Your task to perform on an android device: Is it going to rain this weekend? Image 0: 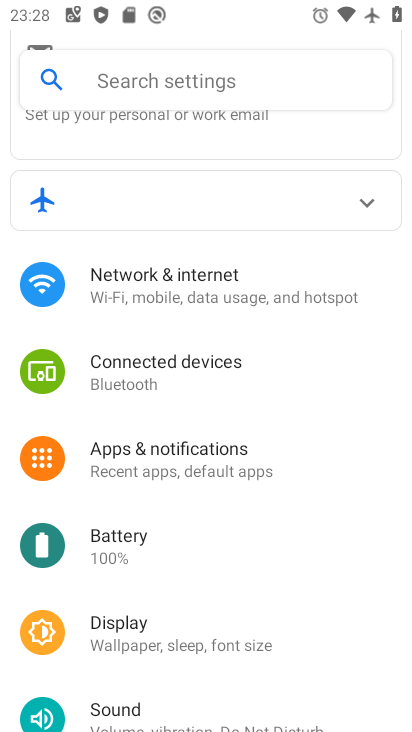
Step 0: press back button
Your task to perform on an android device: Is it going to rain this weekend? Image 1: 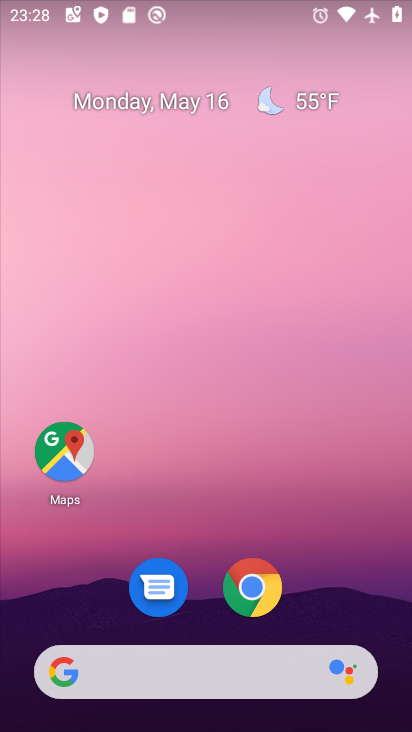
Step 1: drag from (313, 629) to (315, 27)
Your task to perform on an android device: Is it going to rain this weekend? Image 2: 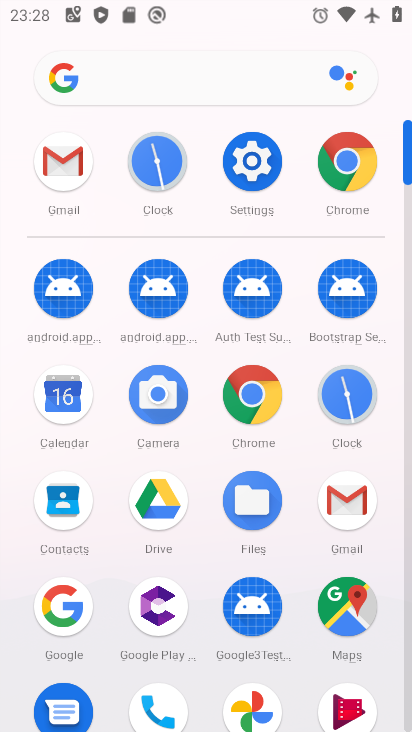
Step 2: drag from (9, 592) to (0, 235)
Your task to perform on an android device: Is it going to rain this weekend? Image 3: 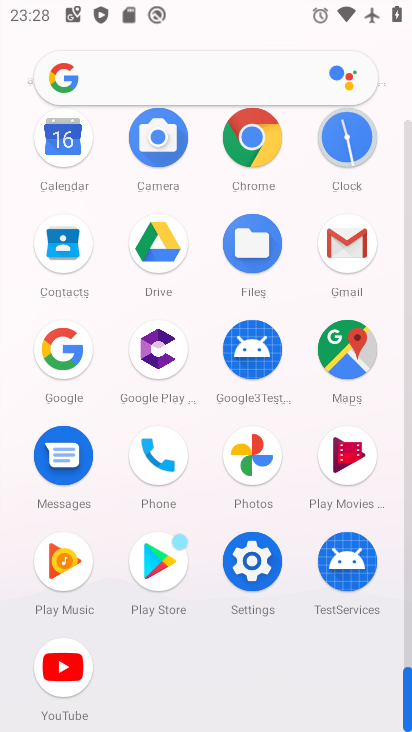
Step 3: drag from (8, 205) to (22, 449)
Your task to perform on an android device: Is it going to rain this weekend? Image 4: 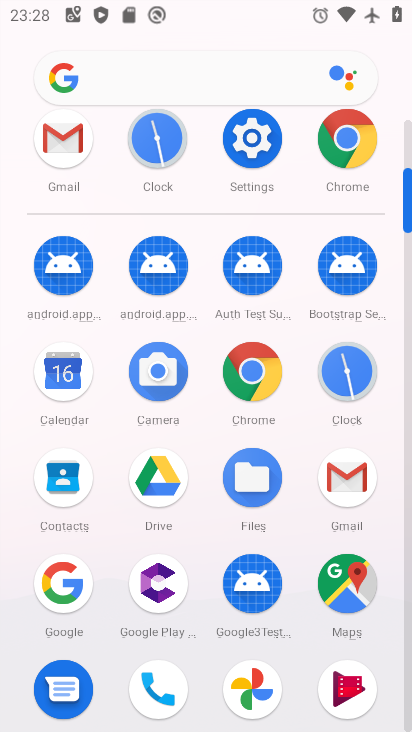
Step 4: click (250, 371)
Your task to perform on an android device: Is it going to rain this weekend? Image 5: 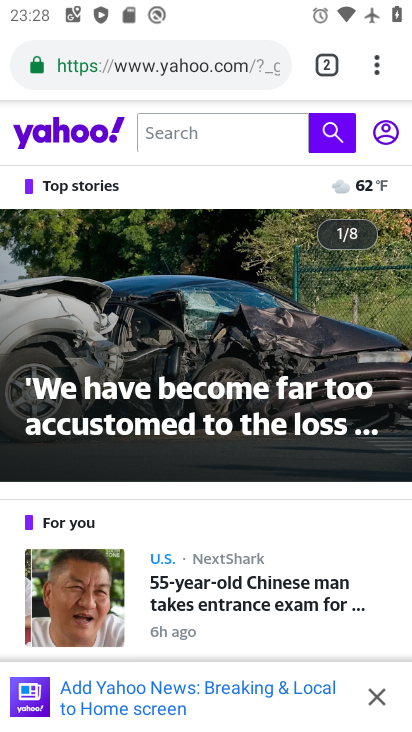
Step 5: click (191, 55)
Your task to perform on an android device: Is it going to rain this weekend? Image 6: 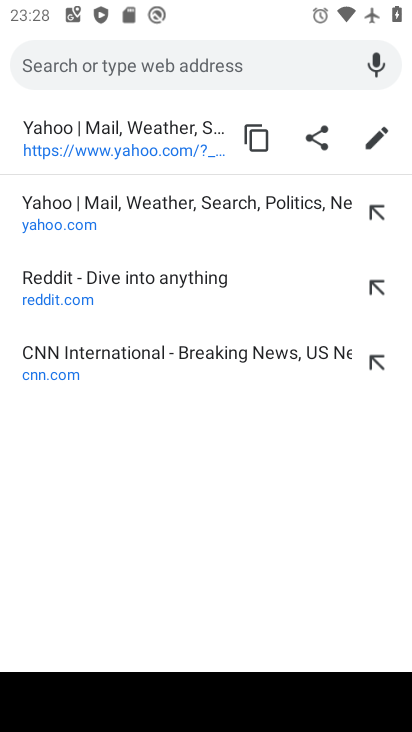
Step 6: type "Is it going to rain this weekend?"
Your task to perform on an android device: Is it going to rain this weekend? Image 7: 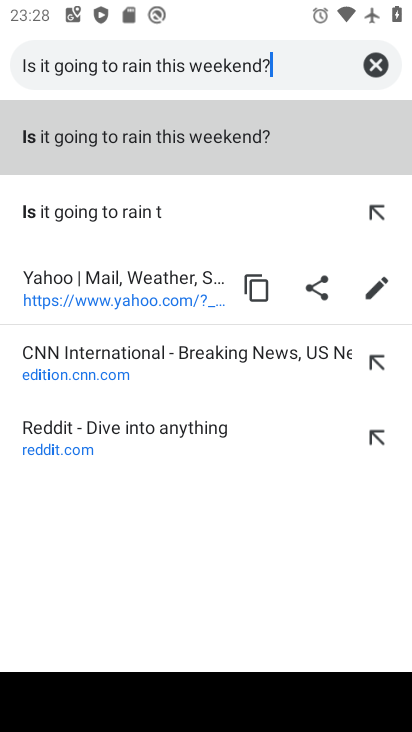
Step 7: type ""
Your task to perform on an android device: Is it going to rain this weekend? Image 8: 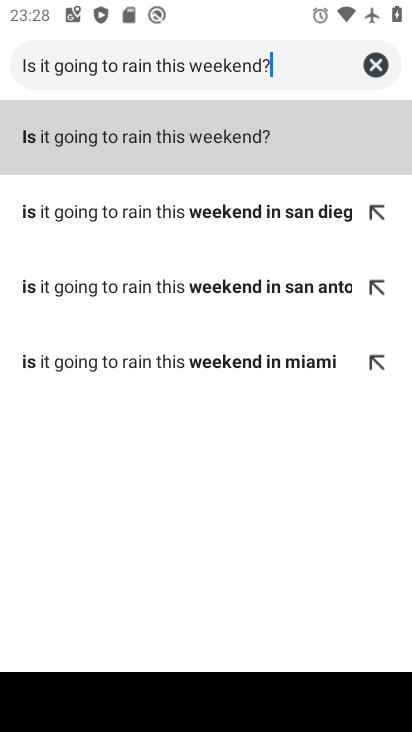
Step 8: click (133, 130)
Your task to perform on an android device: Is it going to rain this weekend? Image 9: 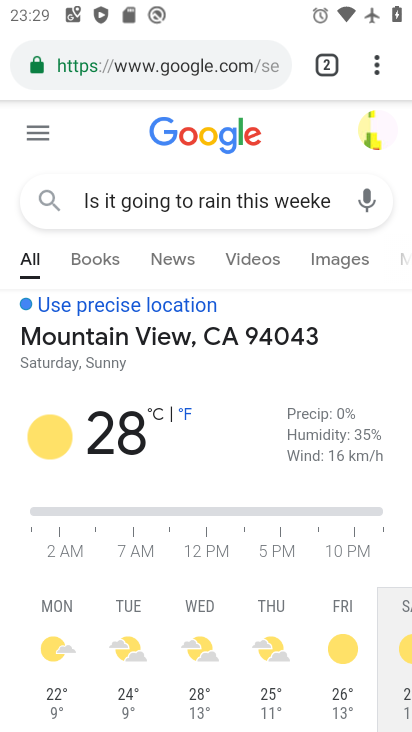
Step 9: task complete